Your task to perform on an android device: change the upload size in google photos Image 0: 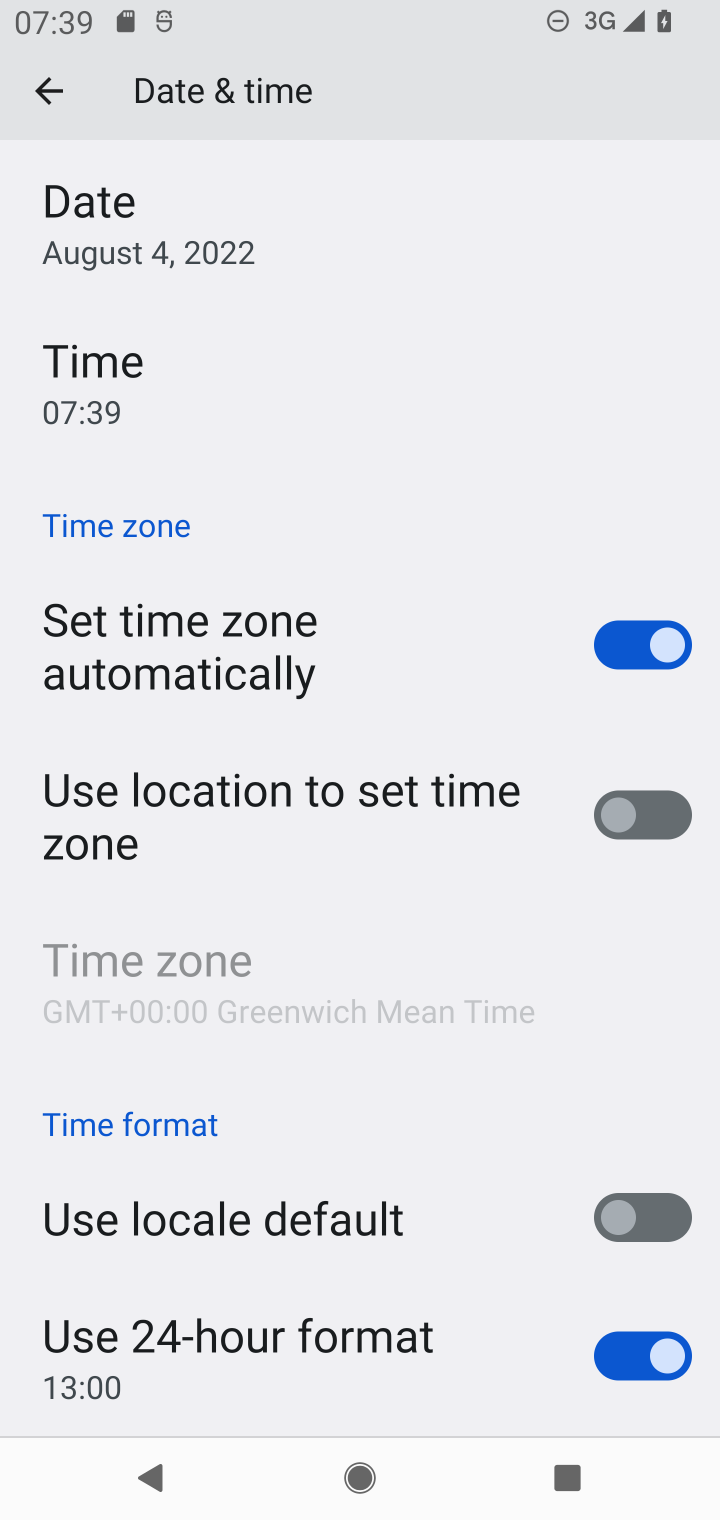
Step 0: press home button
Your task to perform on an android device: change the upload size in google photos Image 1: 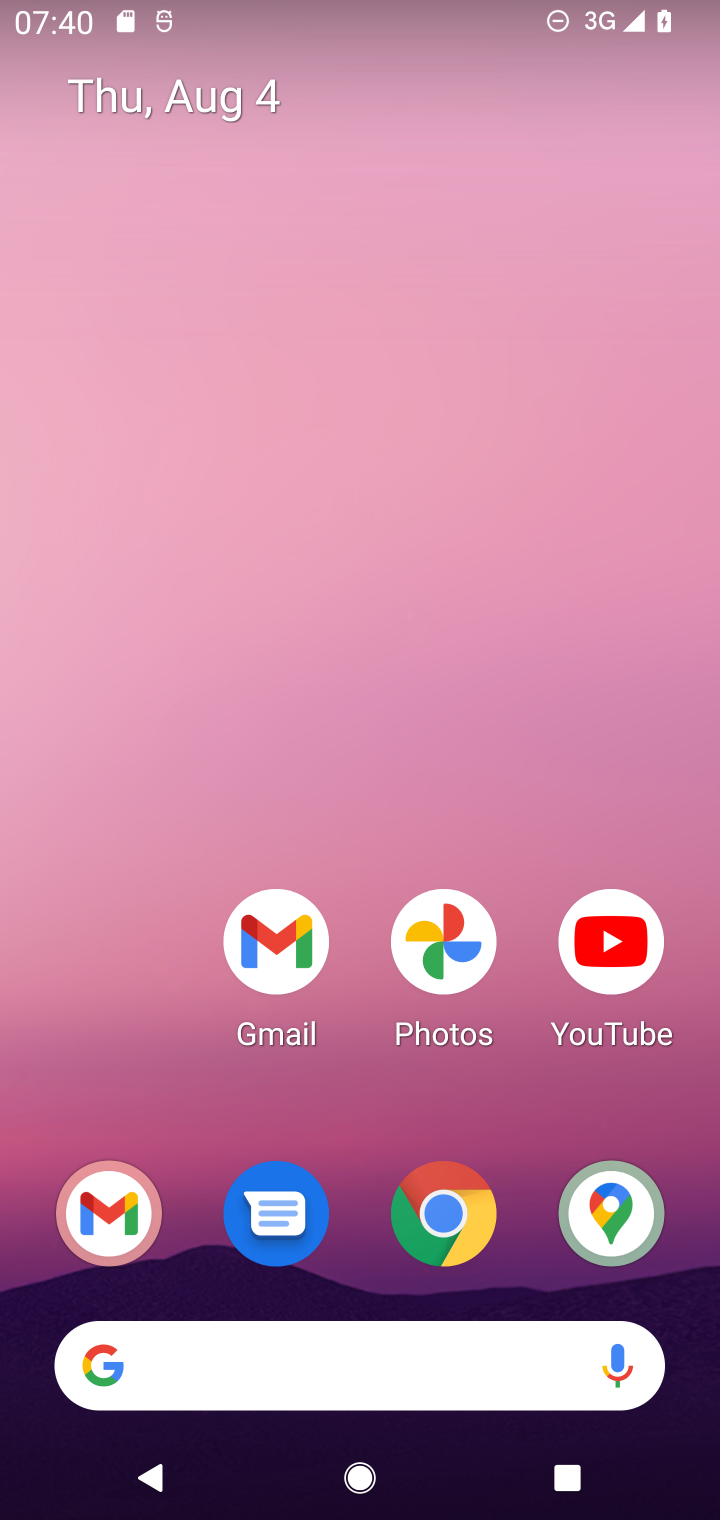
Step 1: drag from (179, 1094) to (185, 352)
Your task to perform on an android device: change the upload size in google photos Image 2: 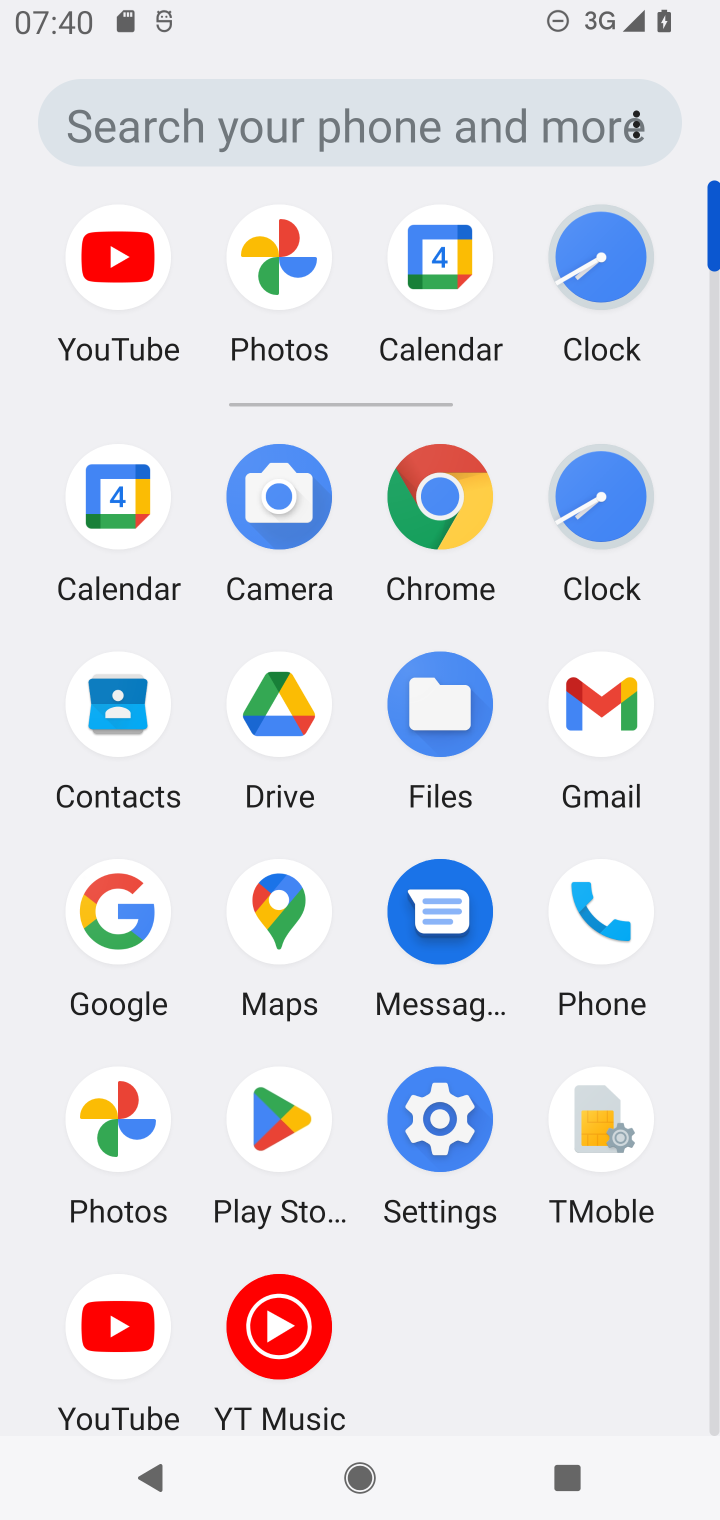
Step 2: click (113, 1132)
Your task to perform on an android device: change the upload size in google photos Image 3: 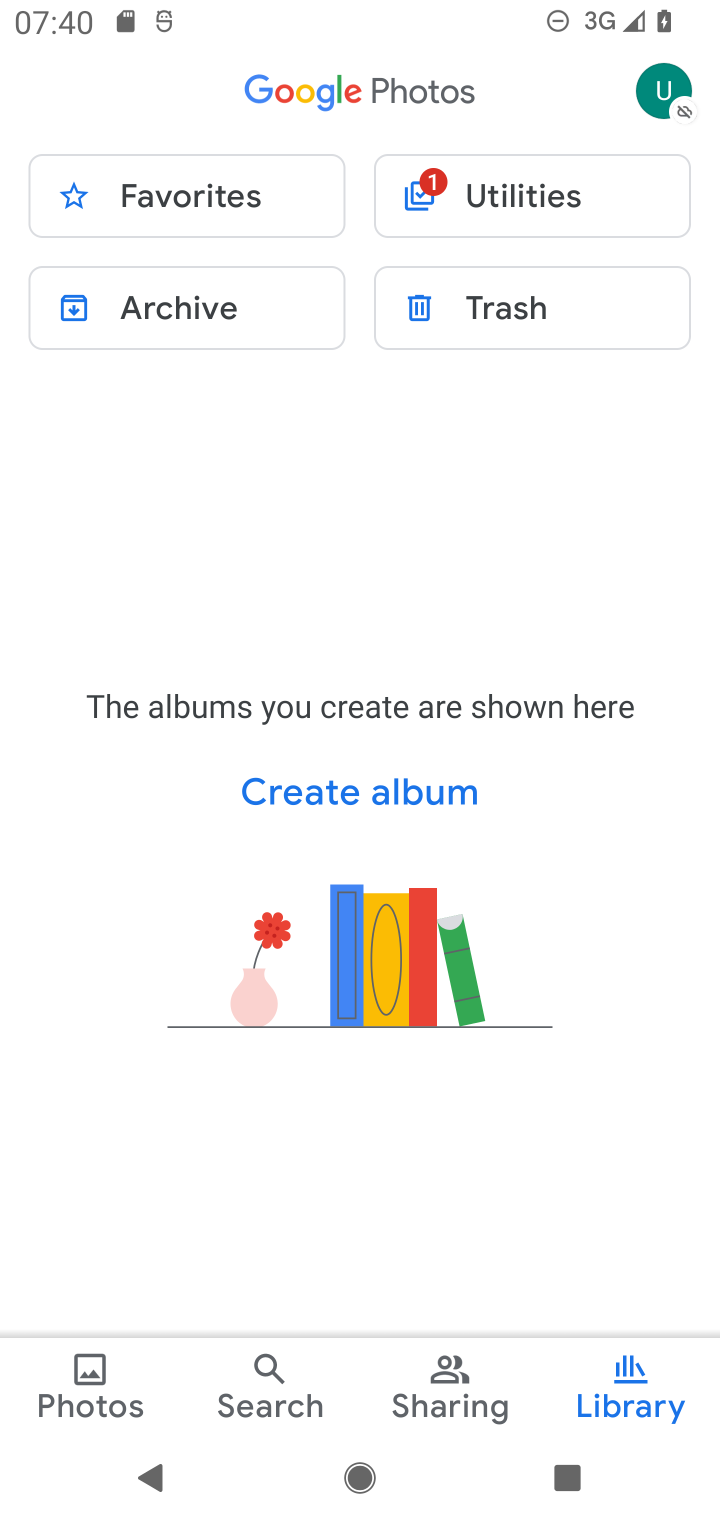
Step 3: click (663, 80)
Your task to perform on an android device: change the upload size in google photos Image 4: 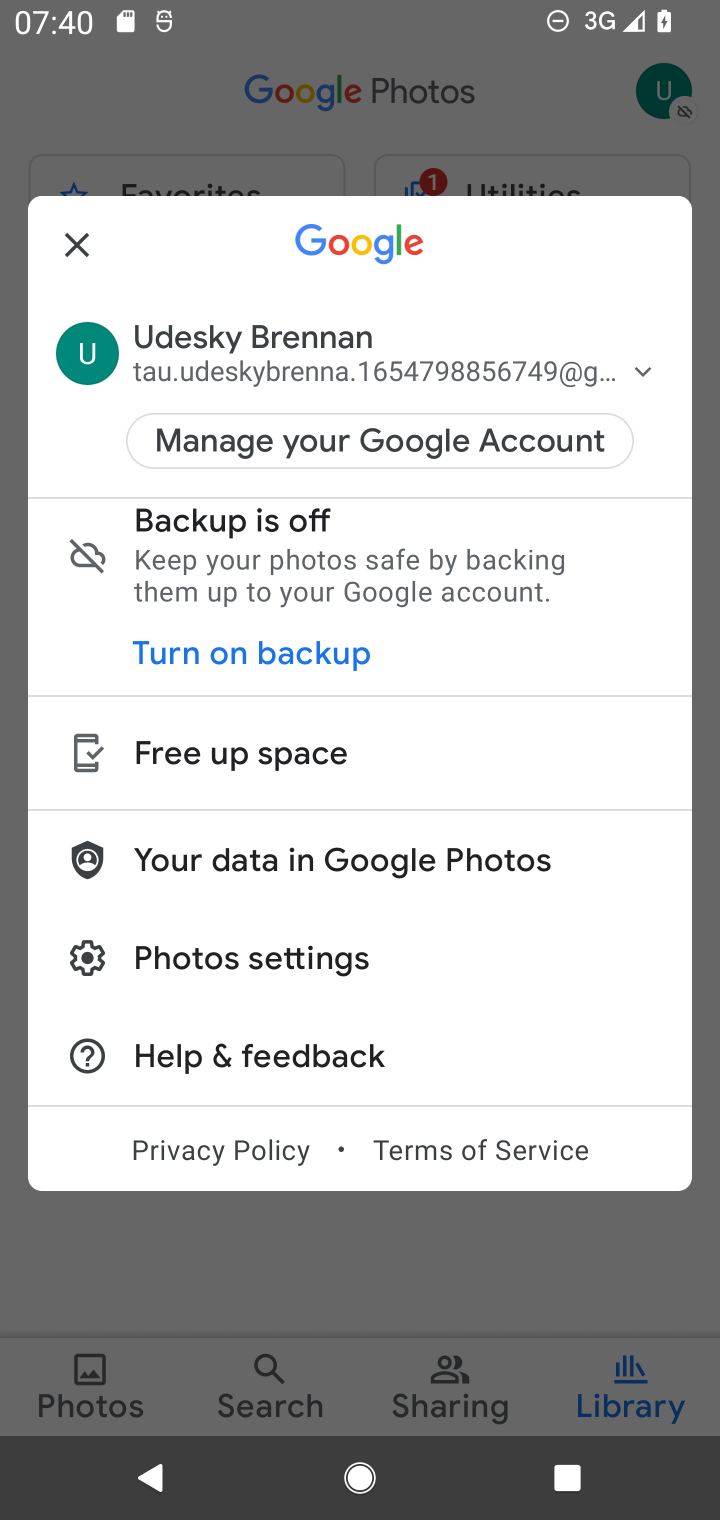
Step 4: click (344, 962)
Your task to perform on an android device: change the upload size in google photos Image 5: 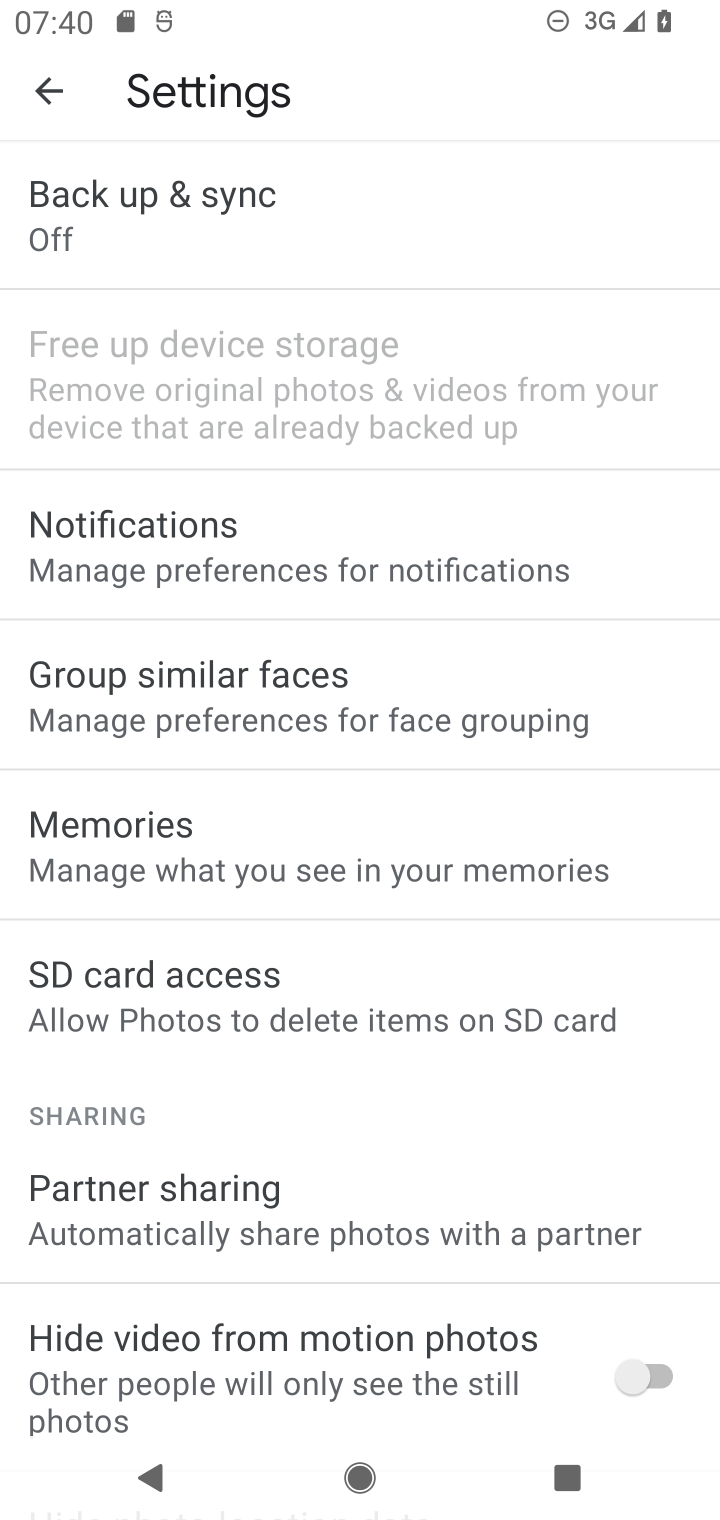
Step 5: click (208, 219)
Your task to perform on an android device: change the upload size in google photos Image 6: 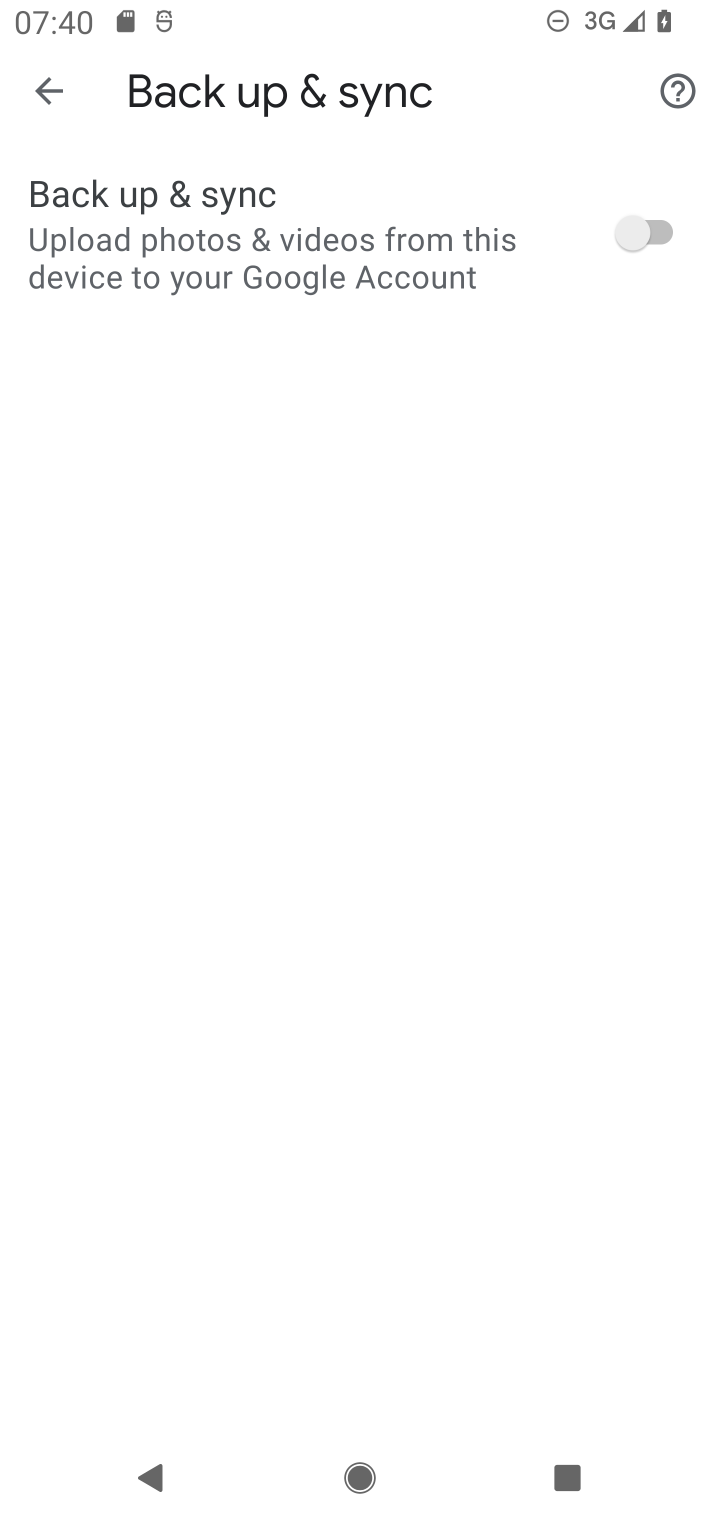
Step 6: click (280, 232)
Your task to perform on an android device: change the upload size in google photos Image 7: 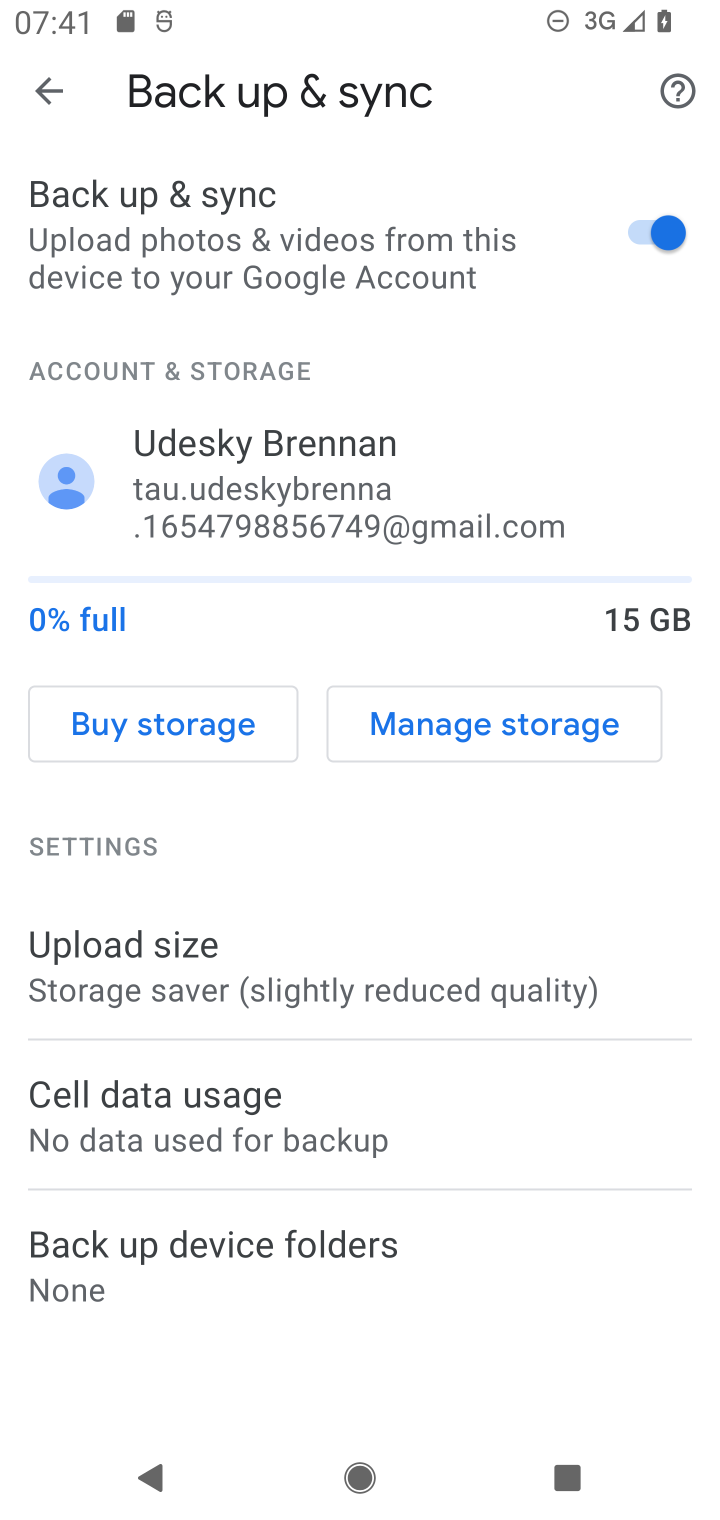
Step 7: click (230, 984)
Your task to perform on an android device: change the upload size in google photos Image 8: 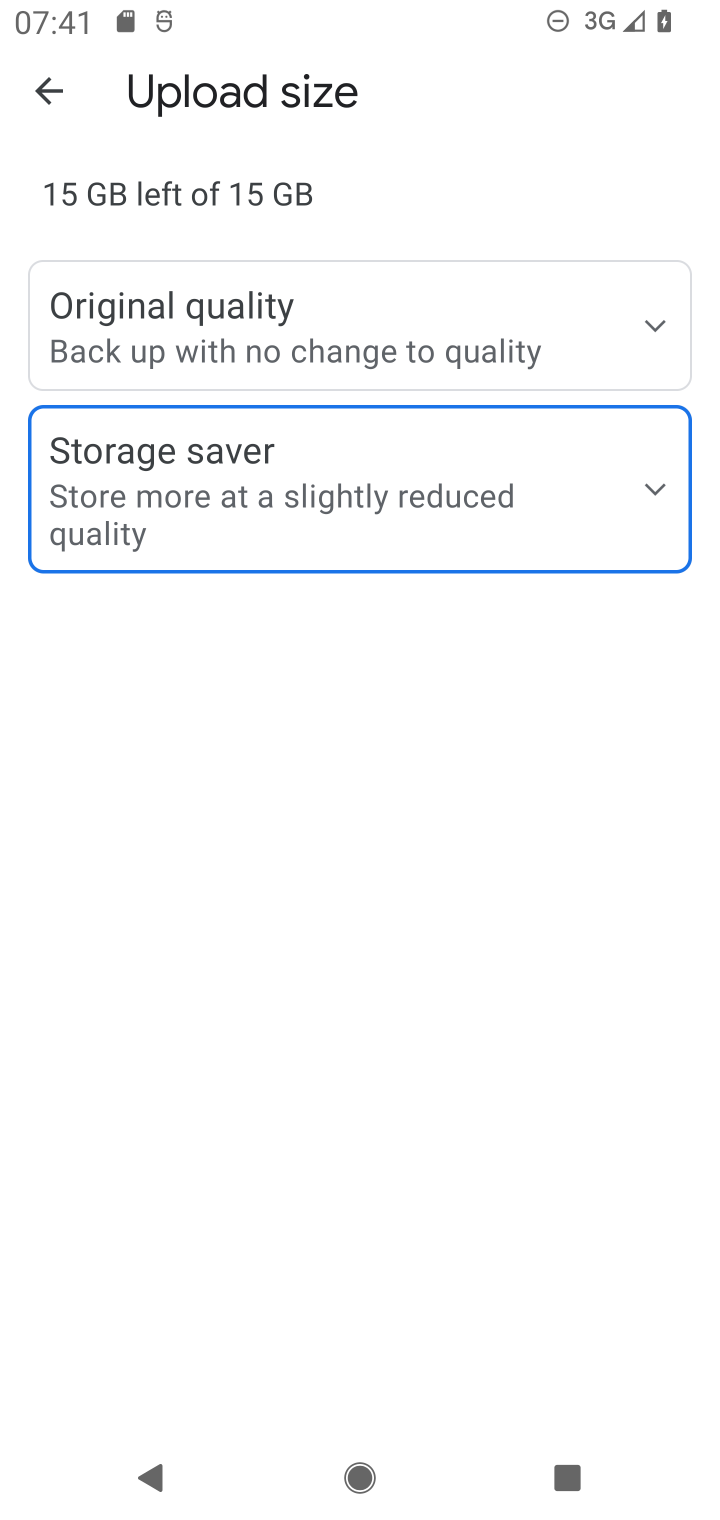
Step 8: click (312, 326)
Your task to perform on an android device: change the upload size in google photos Image 9: 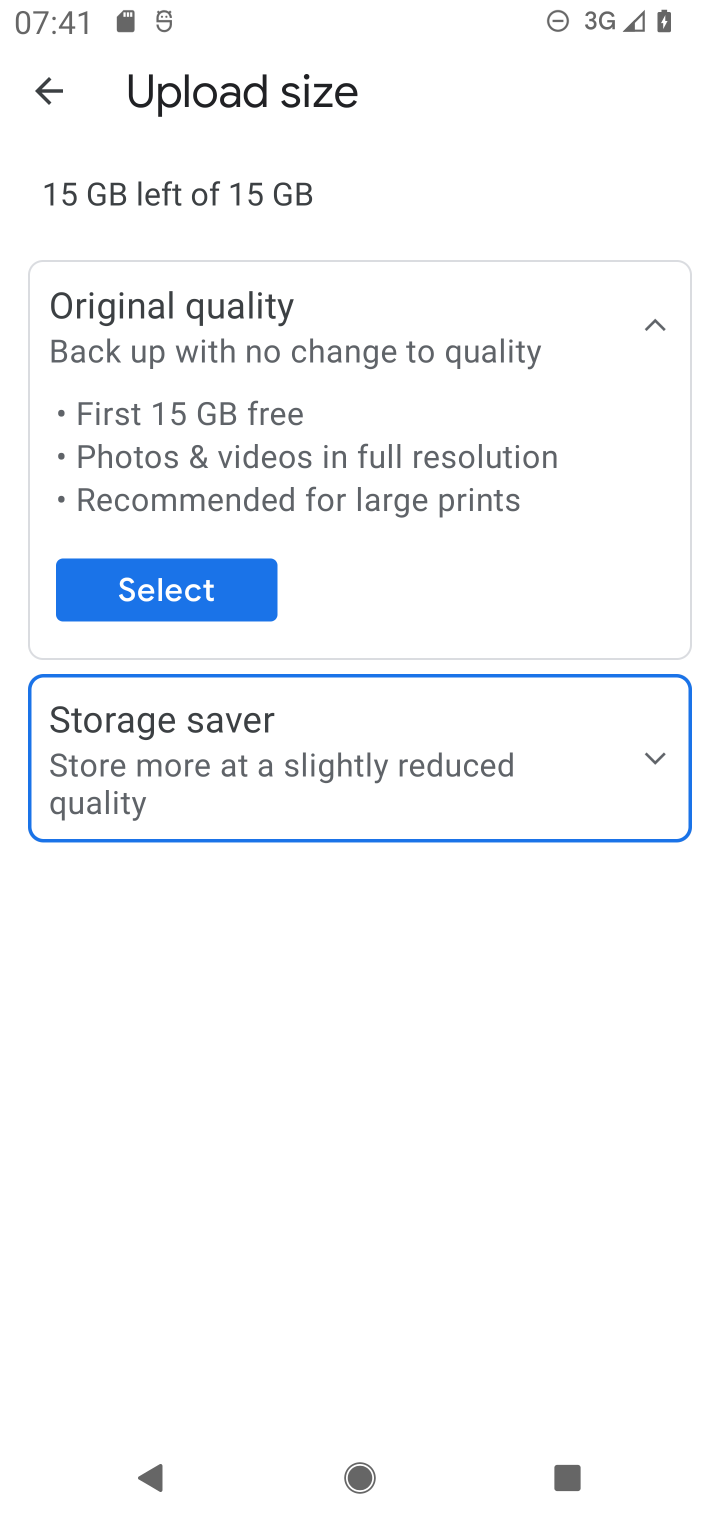
Step 9: click (191, 582)
Your task to perform on an android device: change the upload size in google photos Image 10: 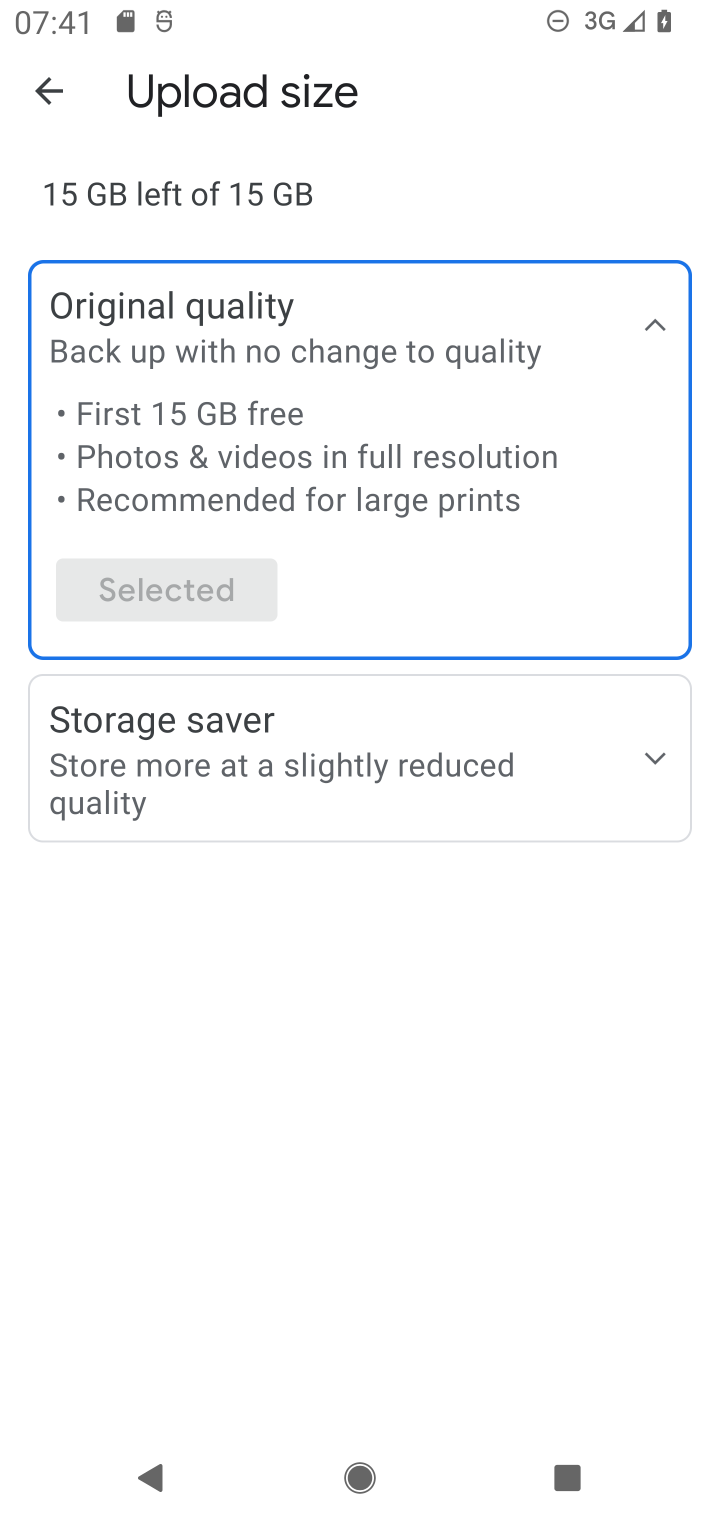
Step 10: task complete